Your task to perform on an android device: Open Google Chrome and click the shortcut for Amazon.com Image 0: 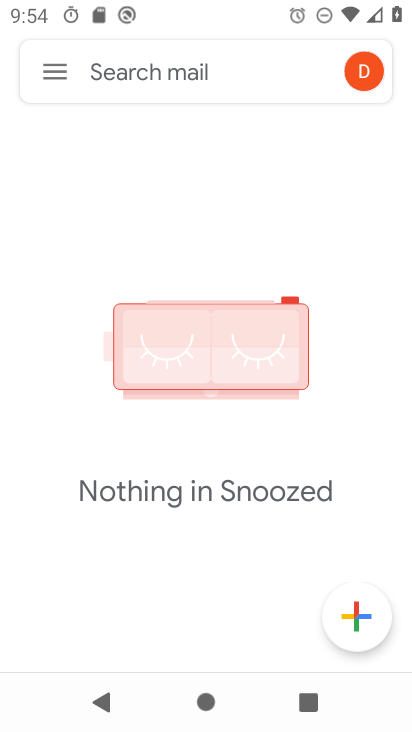
Step 0: press home button
Your task to perform on an android device: Open Google Chrome and click the shortcut for Amazon.com Image 1: 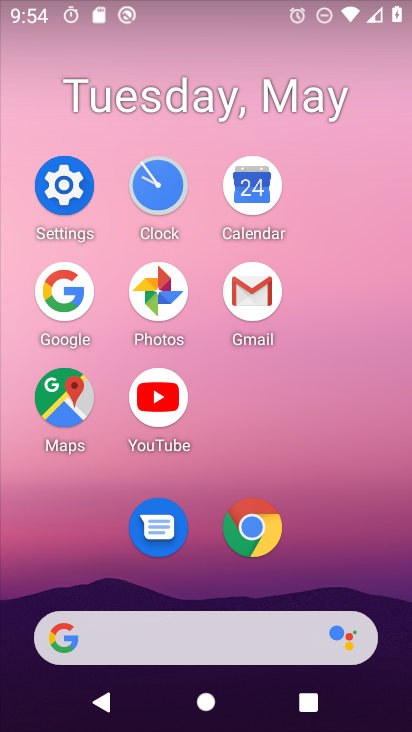
Step 1: click (271, 518)
Your task to perform on an android device: Open Google Chrome and click the shortcut for Amazon.com Image 2: 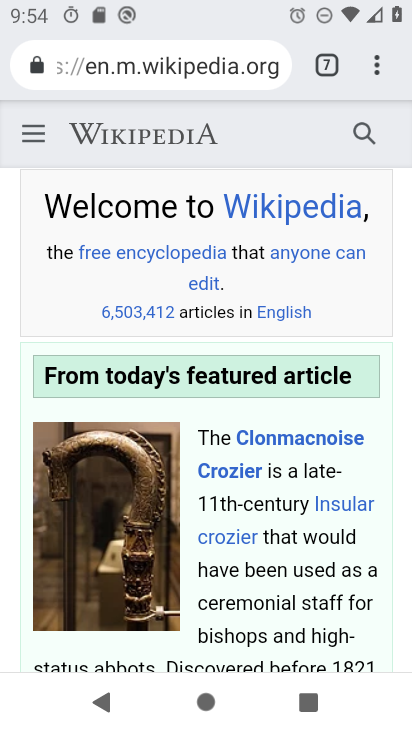
Step 2: click (323, 65)
Your task to perform on an android device: Open Google Chrome and click the shortcut for Amazon.com Image 3: 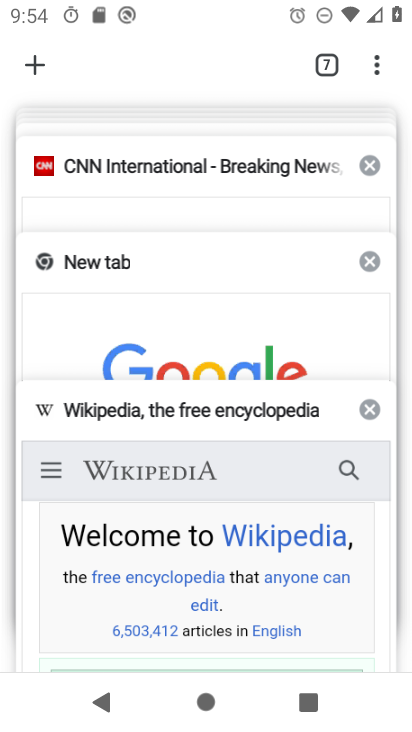
Step 3: drag from (216, 227) to (243, 592)
Your task to perform on an android device: Open Google Chrome and click the shortcut for Amazon.com Image 4: 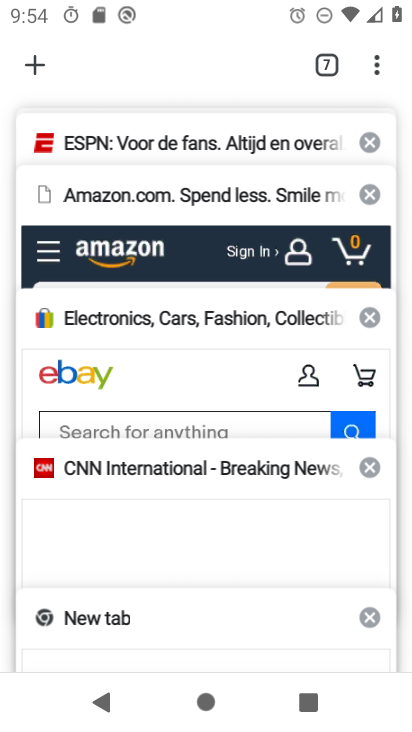
Step 4: click (173, 191)
Your task to perform on an android device: Open Google Chrome and click the shortcut for Amazon.com Image 5: 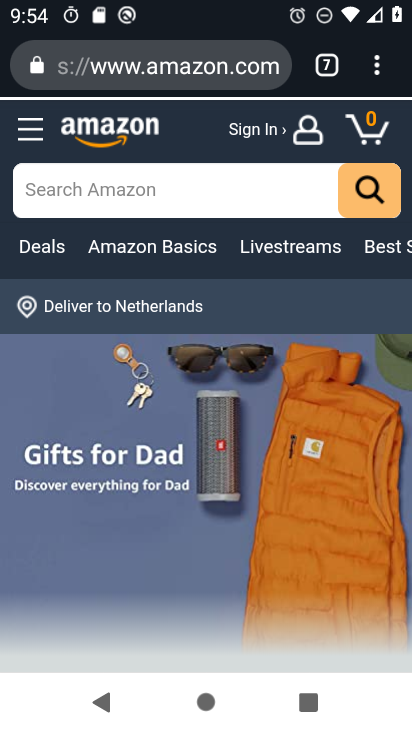
Step 5: click (376, 66)
Your task to perform on an android device: Open Google Chrome and click the shortcut for Amazon.com Image 6: 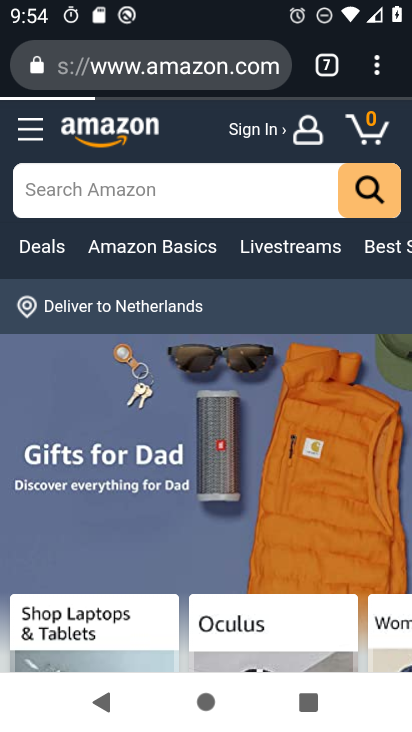
Step 6: click (385, 45)
Your task to perform on an android device: Open Google Chrome and click the shortcut for Amazon.com Image 7: 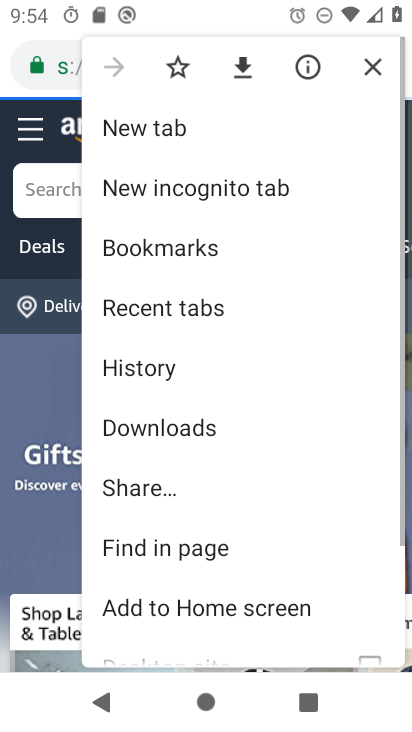
Step 7: drag from (230, 474) to (274, 159)
Your task to perform on an android device: Open Google Chrome and click the shortcut for Amazon.com Image 8: 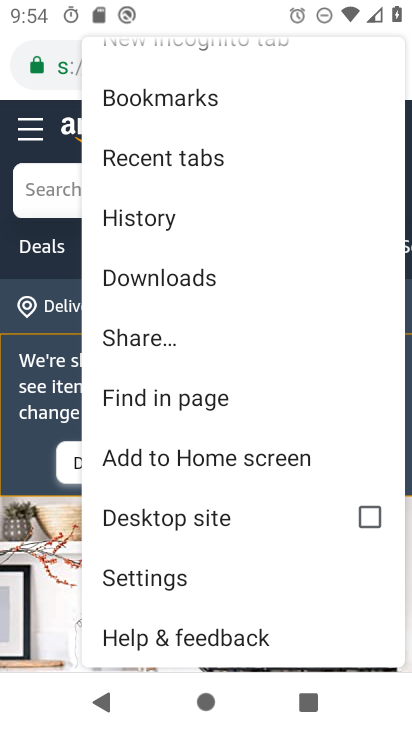
Step 8: click (232, 463)
Your task to perform on an android device: Open Google Chrome and click the shortcut for Amazon.com Image 9: 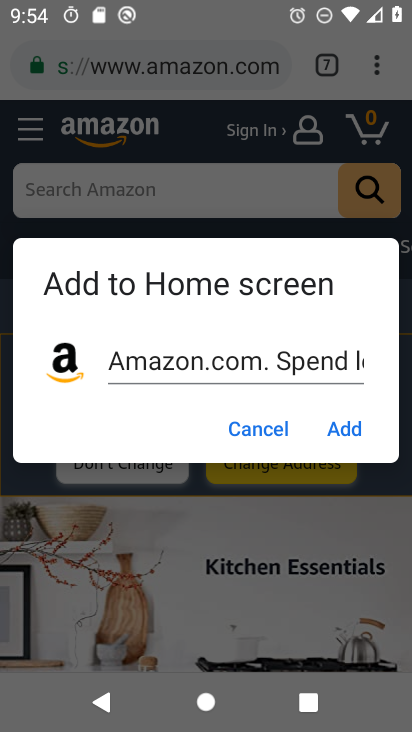
Step 9: click (327, 437)
Your task to perform on an android device: Open Google Chrome and click the shortcut for Amazon.com Image 10: 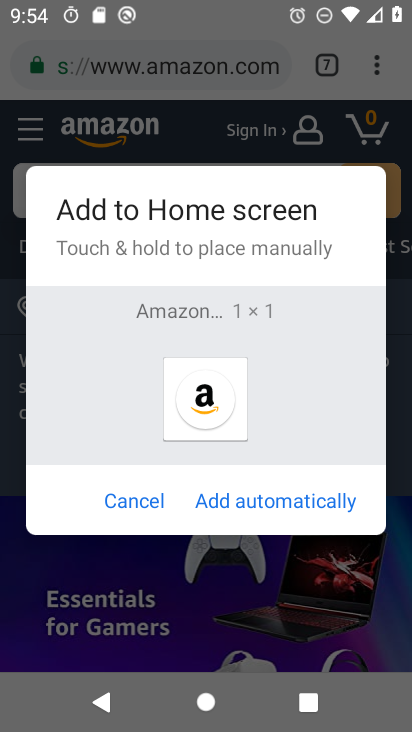
Step 10: click (347, 486)
Your task to perform on an android device: Open Google Chrome and click the shortcut for Amazon.com Image 11: 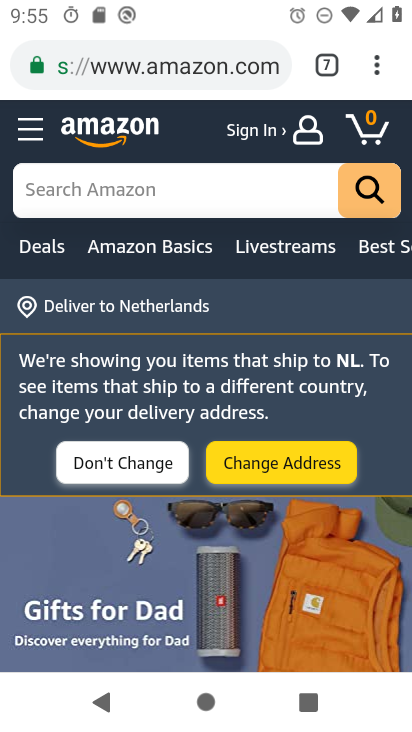
Step 11: task complete